Your task to perform on an android device: toggle javascript in the chrome app Image 0: 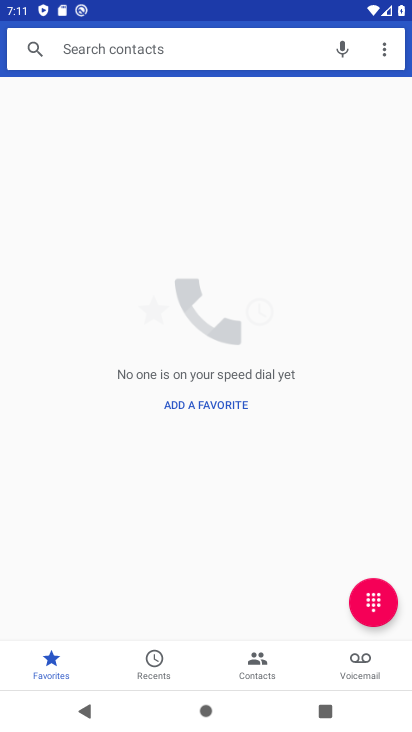
Step 0: press home button
Your task to perform on an android device: toggle javascript in the chrome app Image 1: 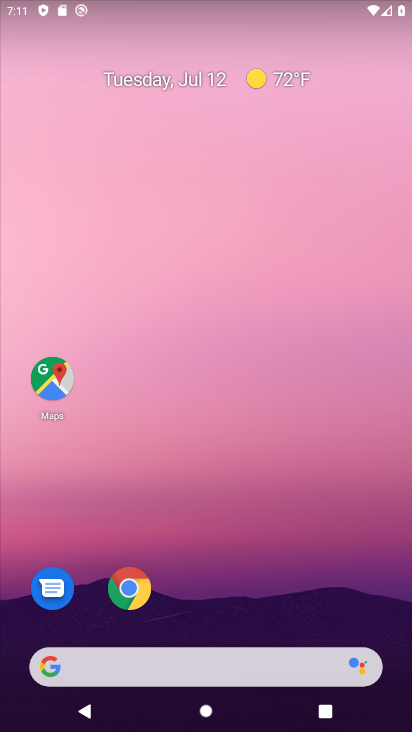
Step 1: drag from (362, 611) to (367, 57)
Your task to perform on an android device: toggle javascript in the chrome app Image 2: 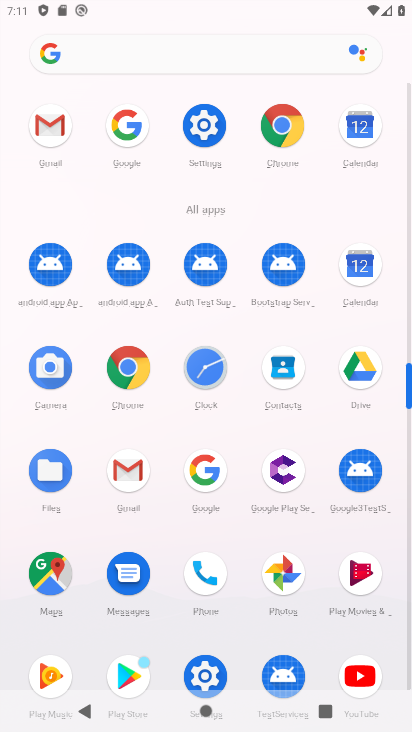
Step 2: click (286, 139)
Your task to perform on an android device: toggle javascript in the chrome app Image 3: 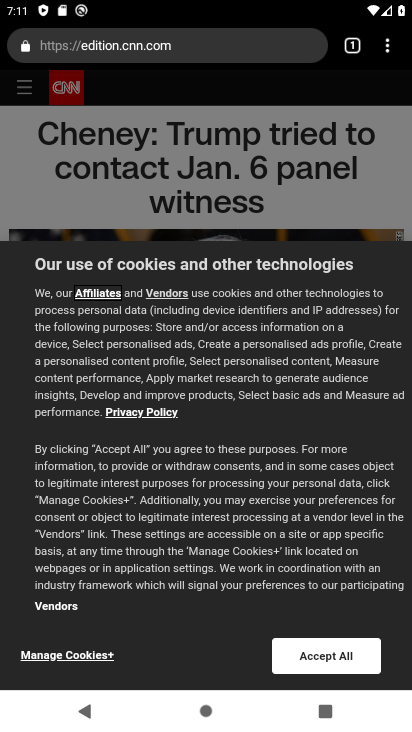
Step 3: drag from (392, 45) to (244, 523)
Your task to perform on an android device: toggle javascript in the chrome app Image 4: 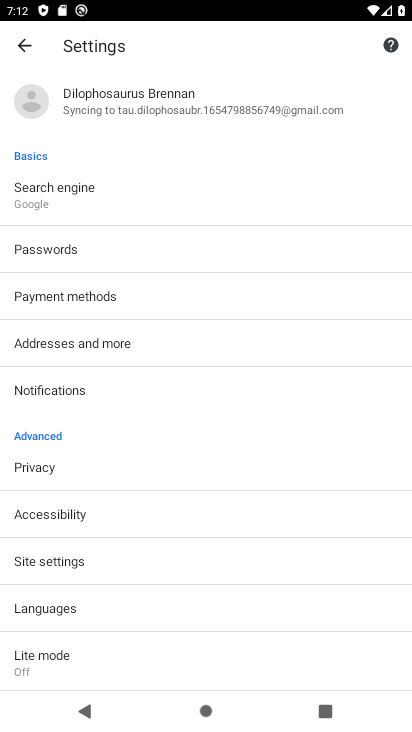
Step 4: click (117, 563)
Your task to perform on an android device: toggle javascript in the chrome app Image 5: 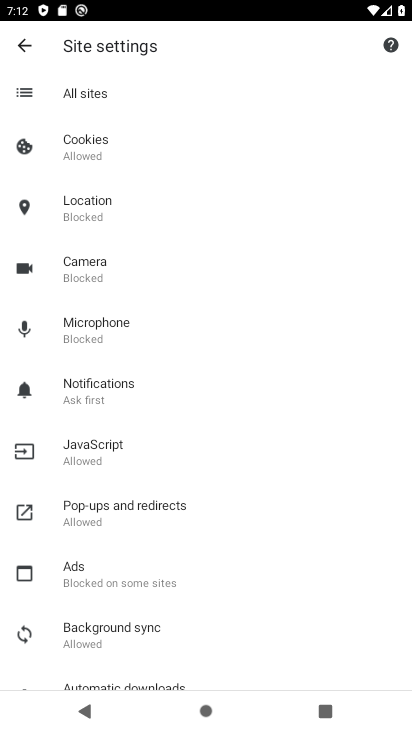
Step 5: click (92, 462)
Your task to perform on an android device: toggle javascript in the chrome app Image 6: 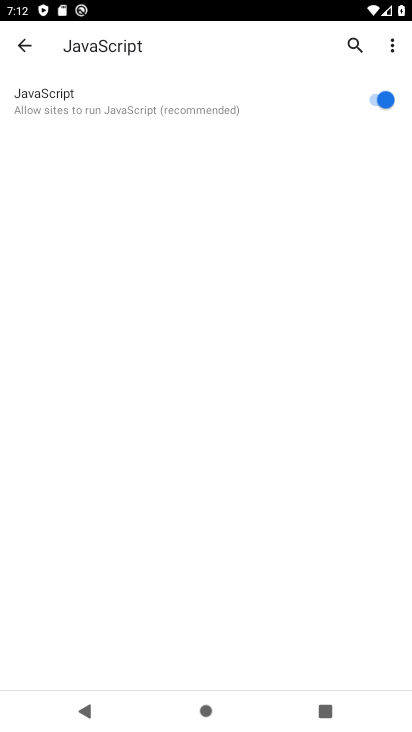
Step 6: click (378, 104)
Your task to perform on an android device: toggle javascript in the chrome app Image 7: 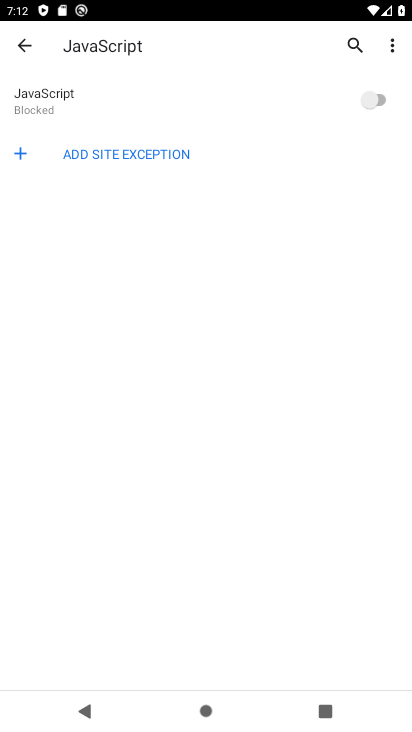
Step 7: task complete